Your task to perform on an android device: turn on data saver in the chrome app Image 0: 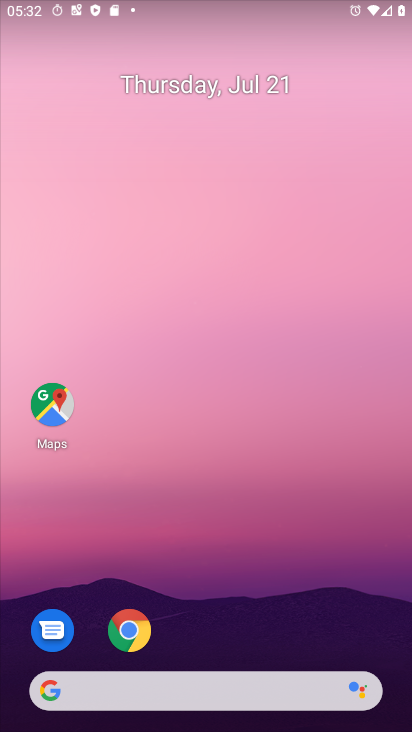
Step 0: click (131, 630)
Your task to perform on an android device: turn on data saver in the chrome app Image 1: 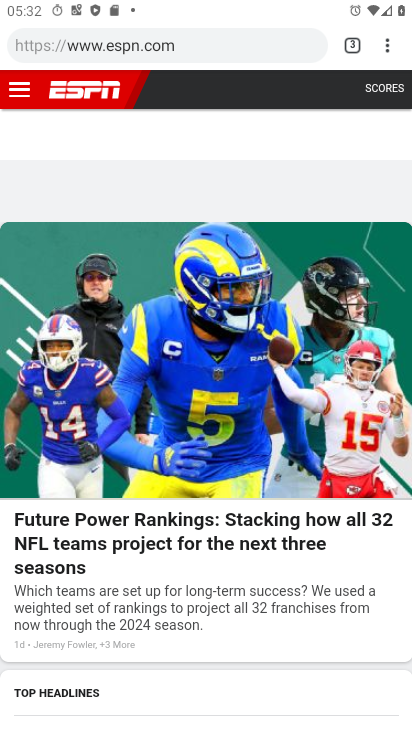
Step 1: click (386, 45)
Your task to perform on an android device: turn on data saver in the chrome app Image 2: 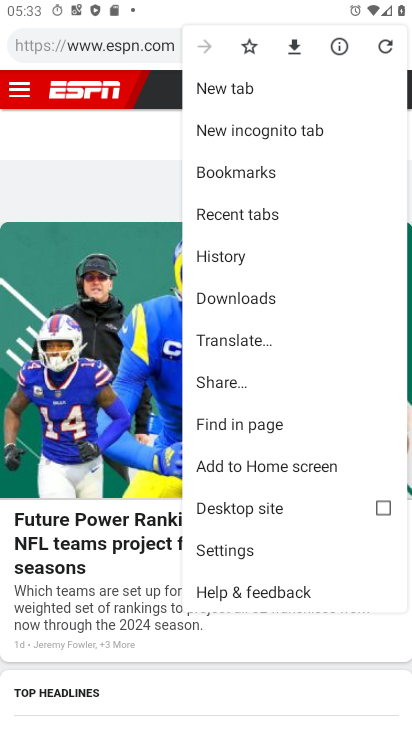
Step 2: click (230, 551)
Your task to perform on an android device: turn on data saver in the chrome app Image 3: 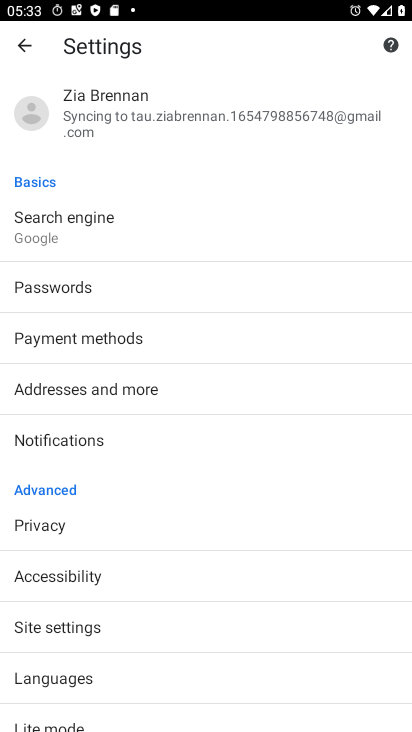
Step 3: click (66, 726)
Your task to perform on an android device: turn on data saver in the chrome app Image 4: 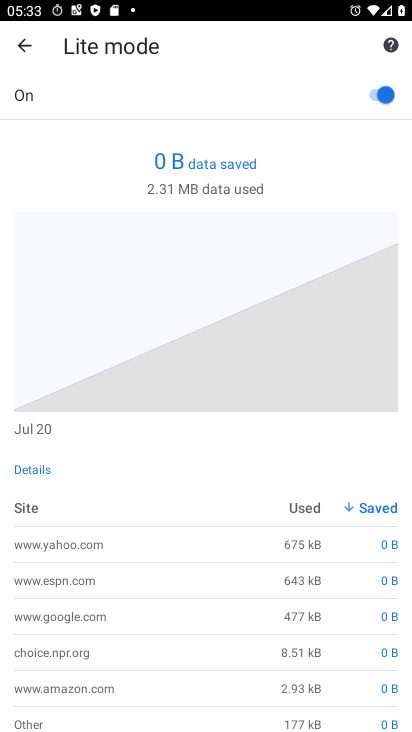
Step 4: task complete